Your task to perform on an android device: change text size in settings app Image 0: 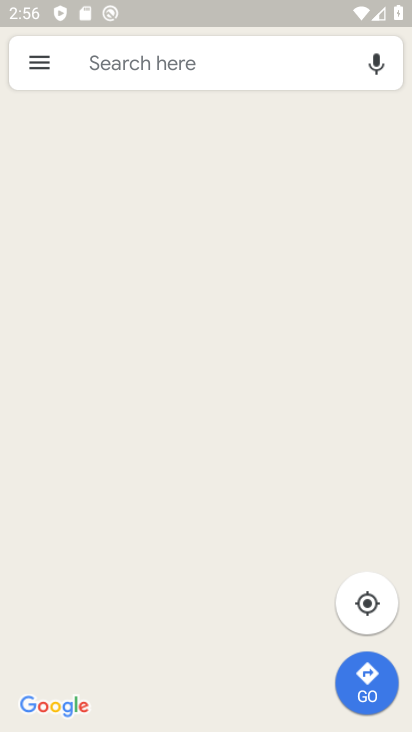
Step 0: press home button
Your task to perform on an android device: change text size in settings app Image 1: 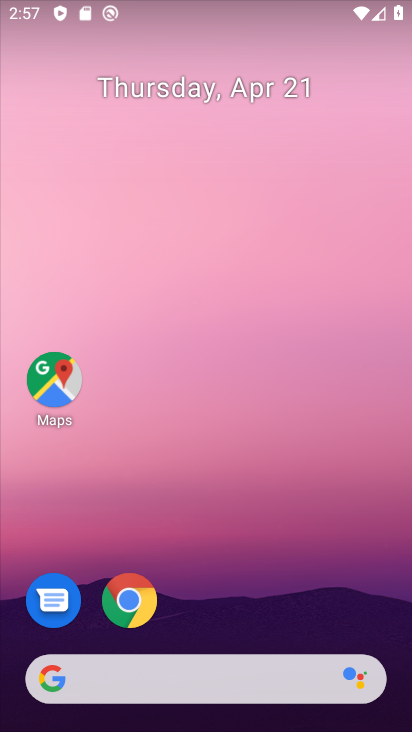
Step 1: drag from (174, 679) to (311, 135)
Your task to perform on an android device: change text size in settings app Image 2: 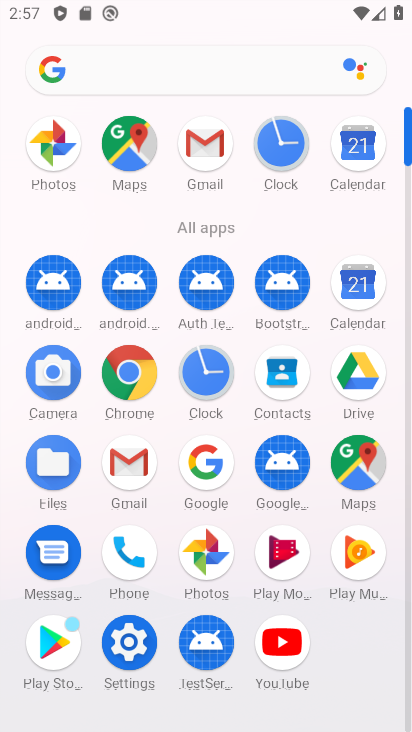
Step 2: click (127, 638)
Your task to perform on an android device: change text size in settings app Image 3: 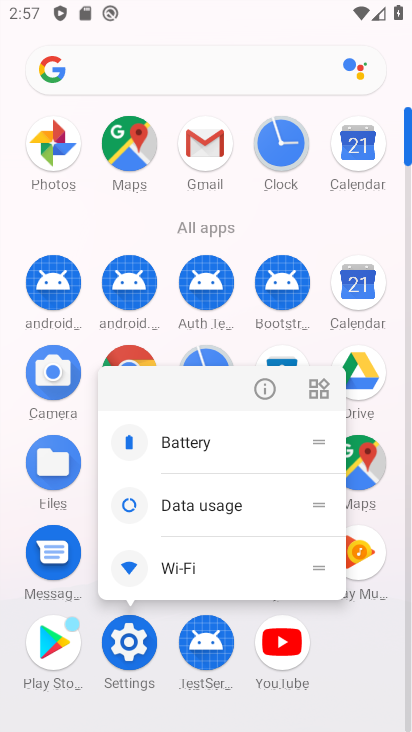
Step 3: click (134, 651)
Your task to perform on an android device: change text size in settings app Image 4: 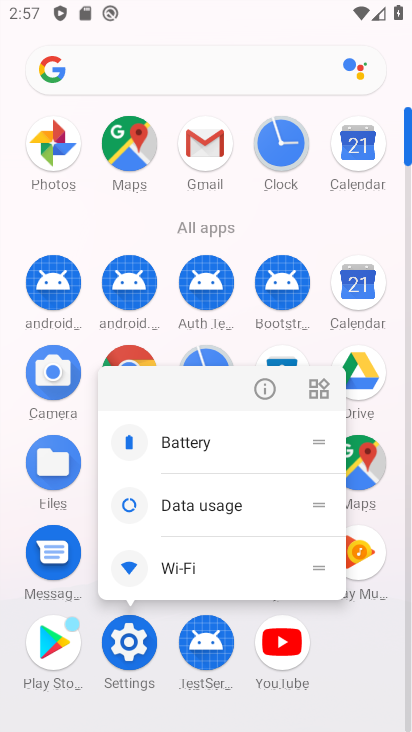
Step 4: click (119, 635)
Your task to perform on an android device: change text size in settings app Image 5: 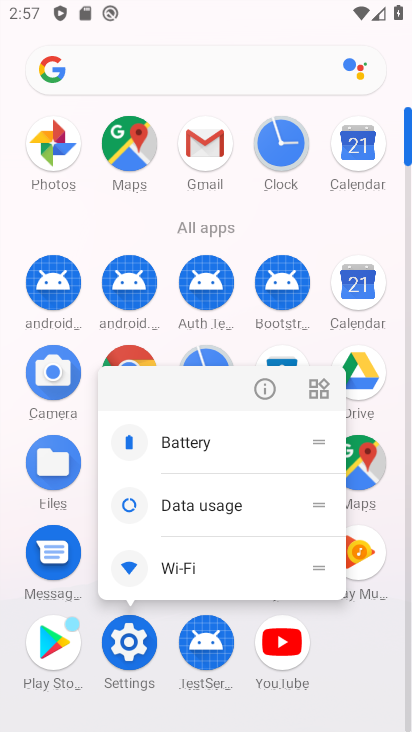
Step 5: click (130, 647)
Your task to perform on an android device: change text size in settings app Image 6: 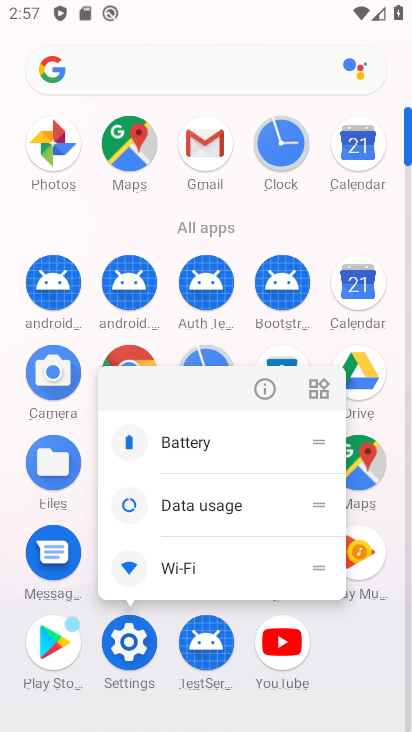
Step 6: click (130, 647)
Your task to perform on an android device: change text size in settings app Image 7: 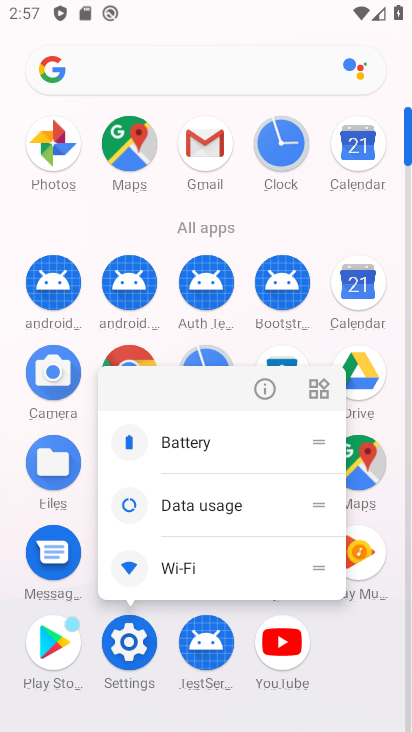
Step 7: click (130, 647)
Your task to perform on an android device: change text size in settings app Image 8: 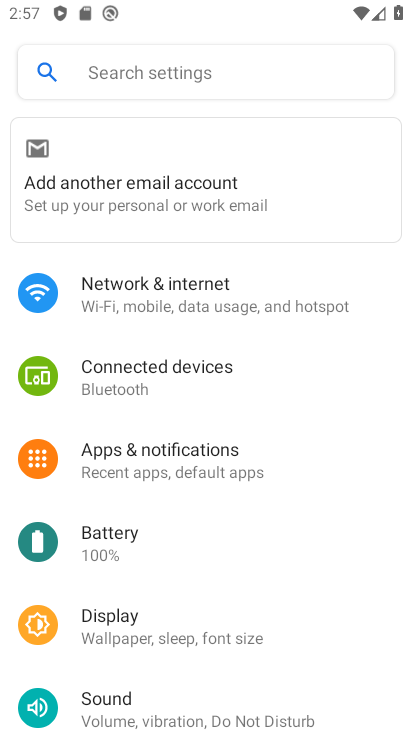
Step 8: click (209, 637)
Your task to perform on an android device: change text size in settings app Image 9: 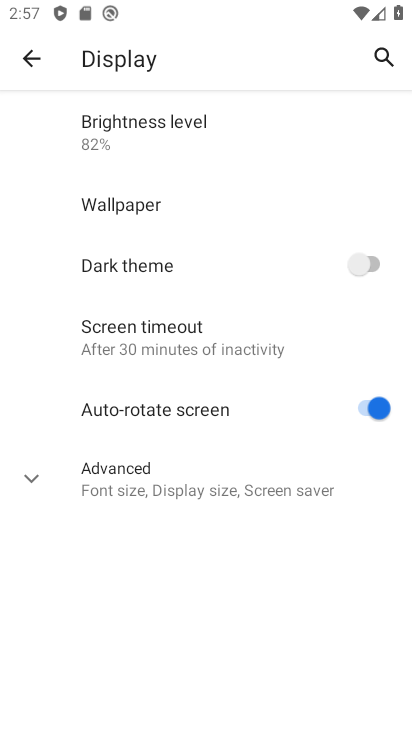
Step 9: click (161, 488)
Your task to perform on an android device: change text size in settings app Image 10: 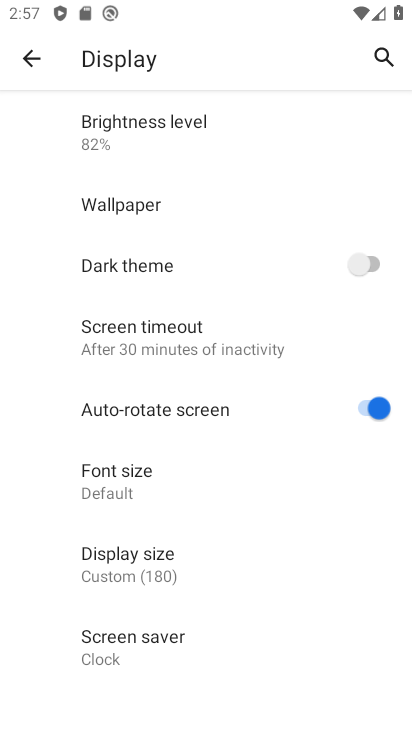
Step 10: click (114, 474)
Your task to perform on an android device: change text size in settings app Image 11: 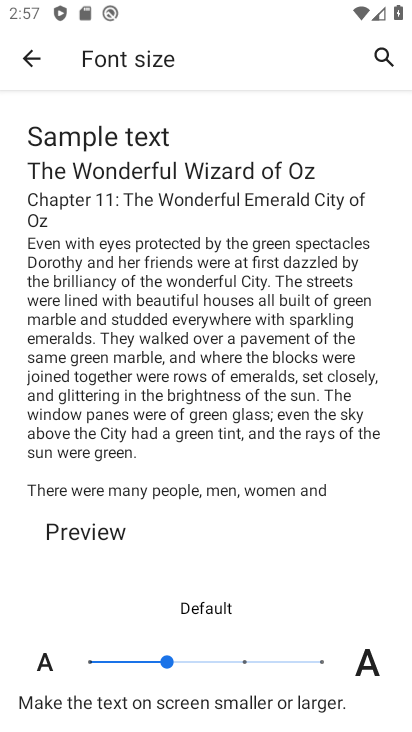
Step 11: click (245, 659)
Your task to perform on an android device: change text size in settings app Image 12: 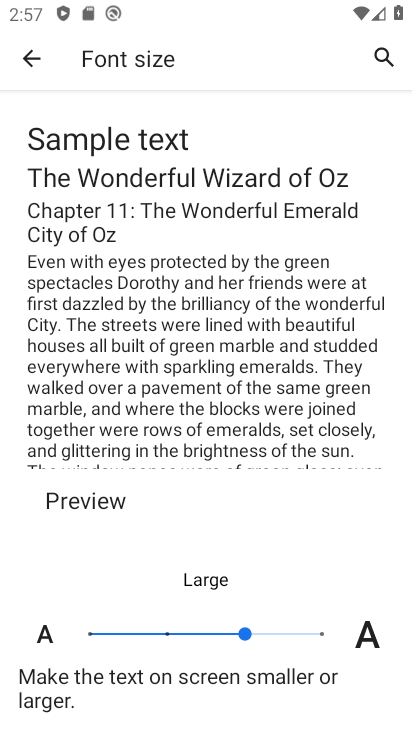
Step 12: task complete